Your task to perform on an android device: find photos in the google photos app Image 0: 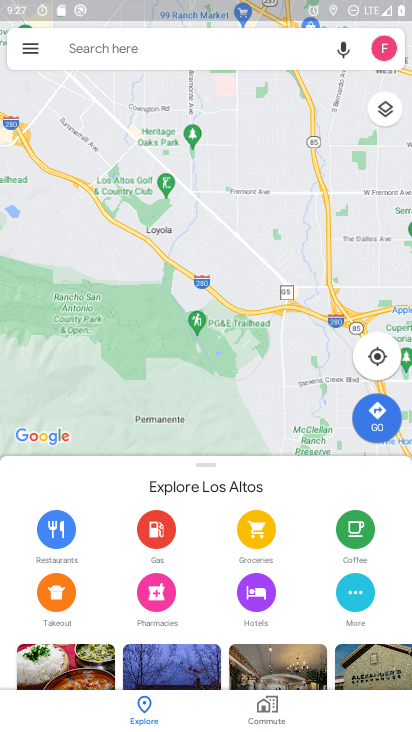
Step 0: press home button
Your task to perform on an android device: find photos in the google photos app Image 1: 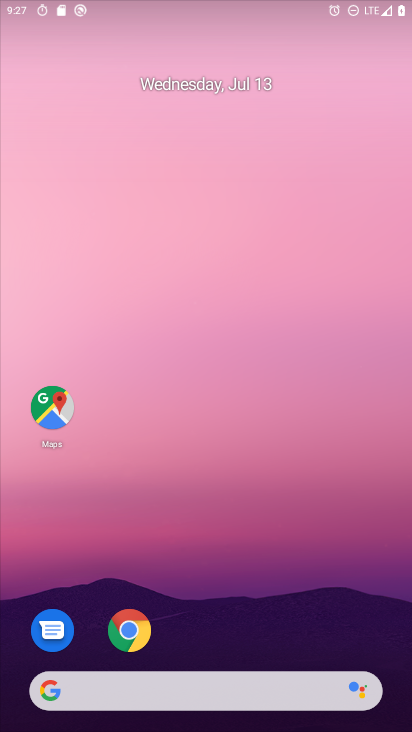
Step 1: drag from (403, 668) to (242, 29)
Your task to perform on an android device: find photos in the google photos app Image 2: 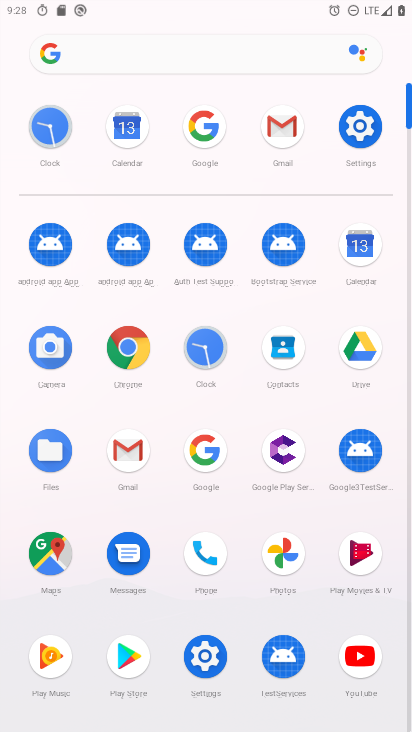
Step 2: click (294, 565)
Your task to perform on an android device: find photos in the google photos app Image 3: 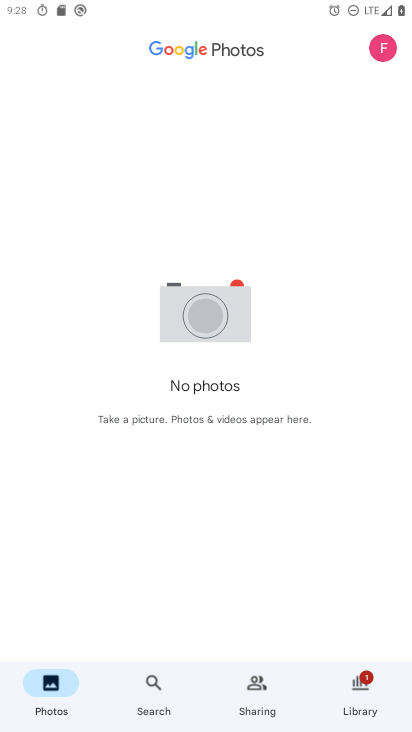
Step 3: task complete